Your task to perform on an android device: turn pop-ups on in chrome Image 0: 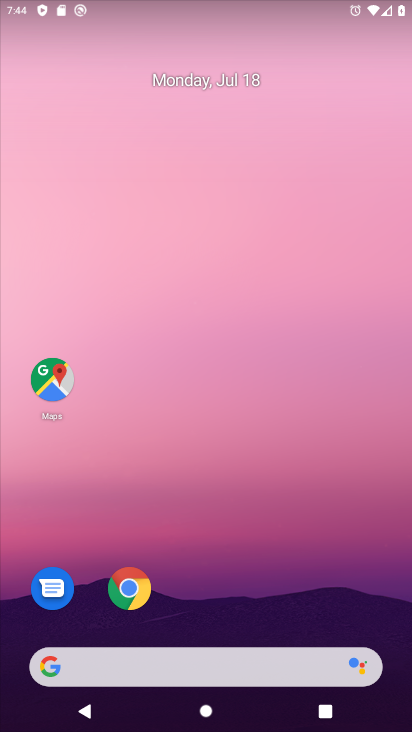
Step 0: click (140, 600)
Your task to perform on an android device: turn pop-ups on in chrome Image 1: 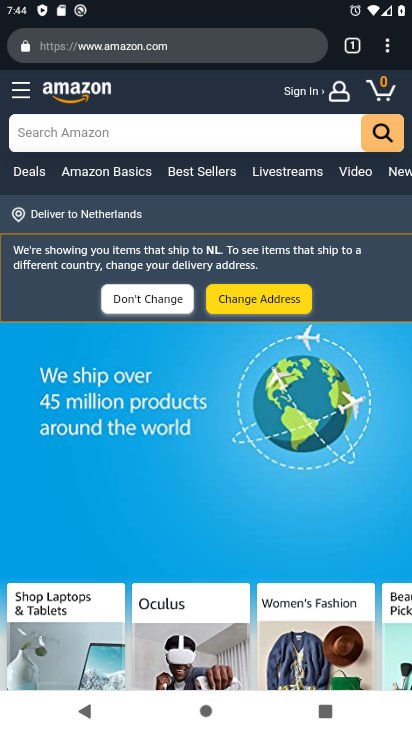
Step 1: click (387, 50)
Your task to perform on an android device: turn pop-ups on in chrome Image 2: 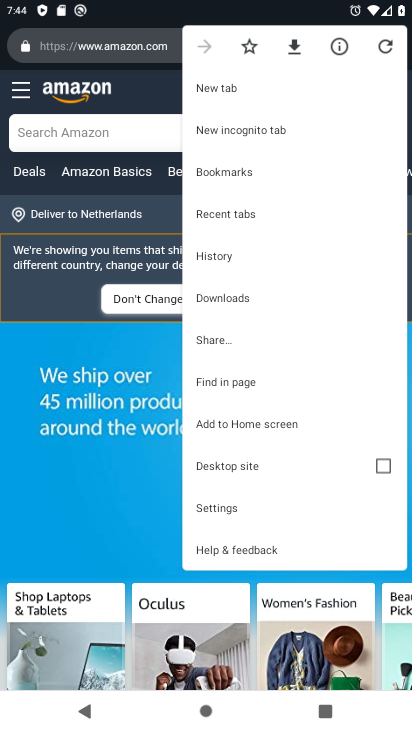
Step 2: click (226, 518)
Your task to perform on an android device: turn pop-ups on in chrome Image 3: 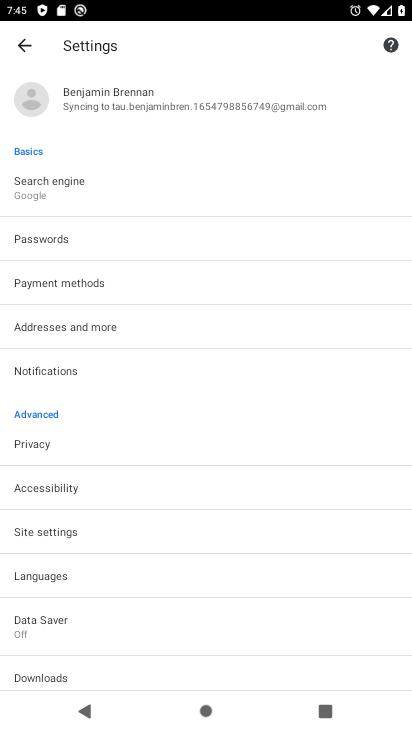
Step 3: click (56, 535)
Your task to perform on an android device: turn pop-ups on in chrome Image 4: 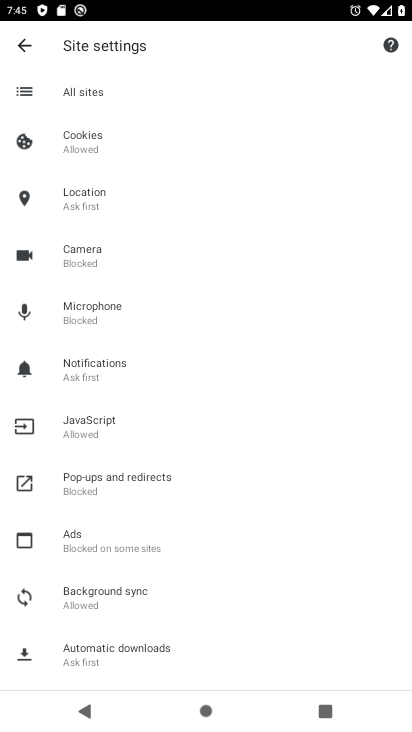
Step 4: click (79, 491)
Your task to perform on an android device: turn pop-ups on in chrome Image 5: 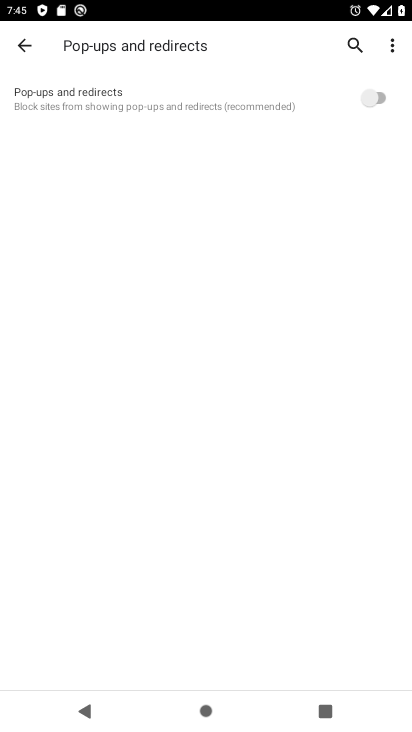
Step 5: click (323, 93)
Your task to perform on an android device: turn pop-ups on in chrome Image 6: 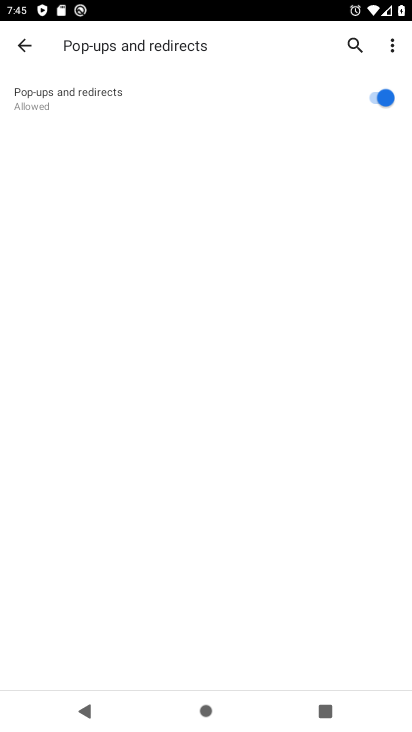
Step 6: task complete